Your task to perform on an android device: turn off data saver in the chrome app Image 0: 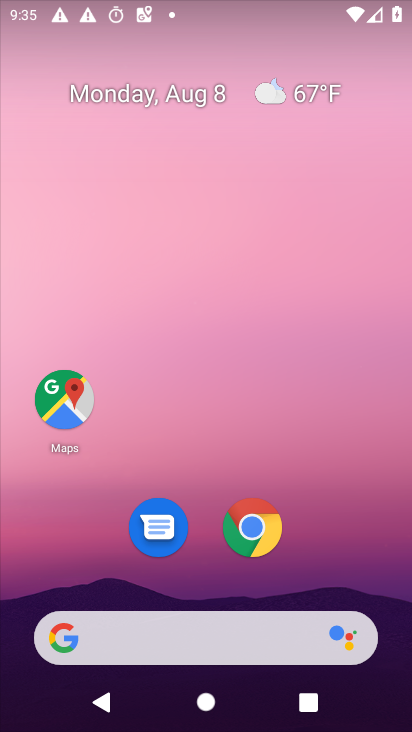
Step 0: click (258, 518)
Your task to perform on an android device: turn off data saver in the chrome app Image 1: 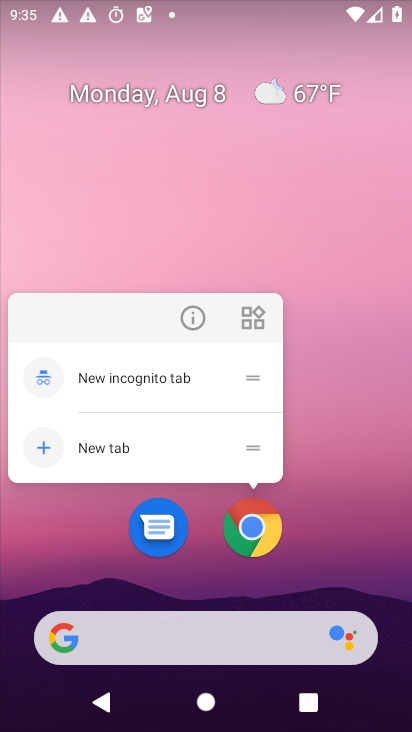
Step 1: click (250, 526)
Your task to perform on an android device: turn off data saver in the chrome app Image 2: 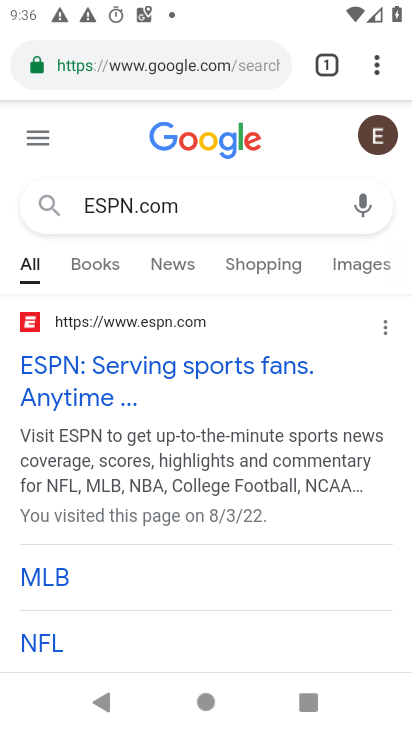
Step 2: click (373, 56)
Your task to perform on an android device: turn off data saver in the chrome app Image 3: 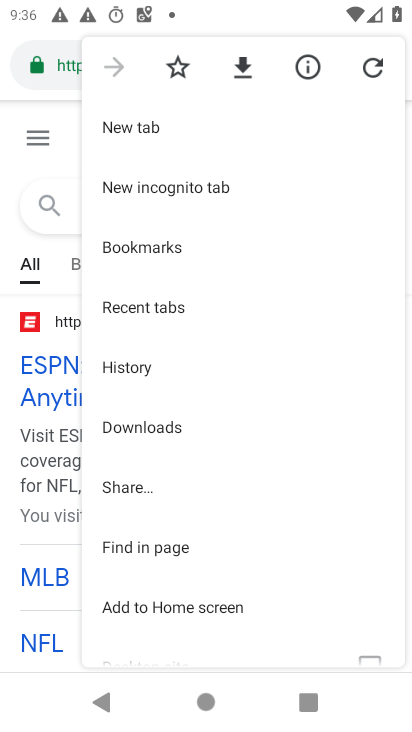
Step 3: drag from (305, 591) to (301, 275)
Your task to perform on an android device: turn off data saver in the chrome app Image 4: 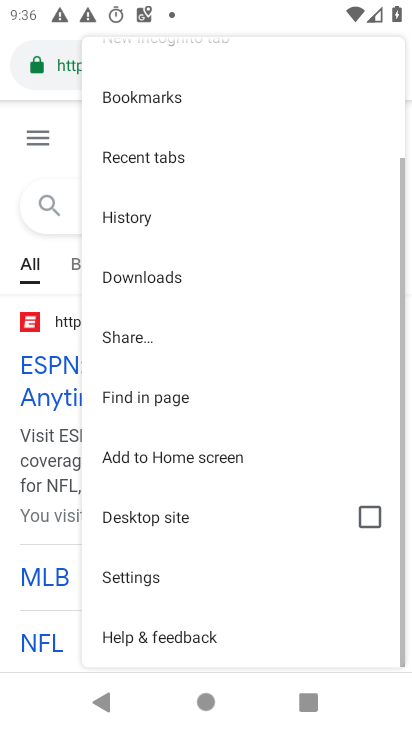
Step 4: click (145, 576)
Your task to perform on an android device: turn off data saver in the chrome app Image 5: 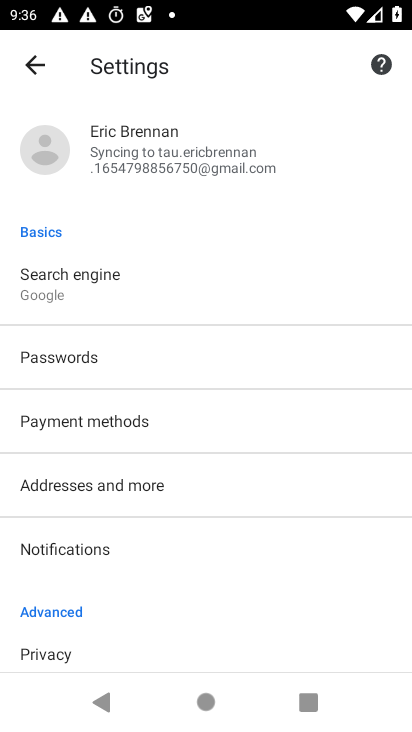
Step 5: drag from (293, 623) to (318, 298)
Your task to perform on an android device: turn off data saver in the chrome app Image 6: 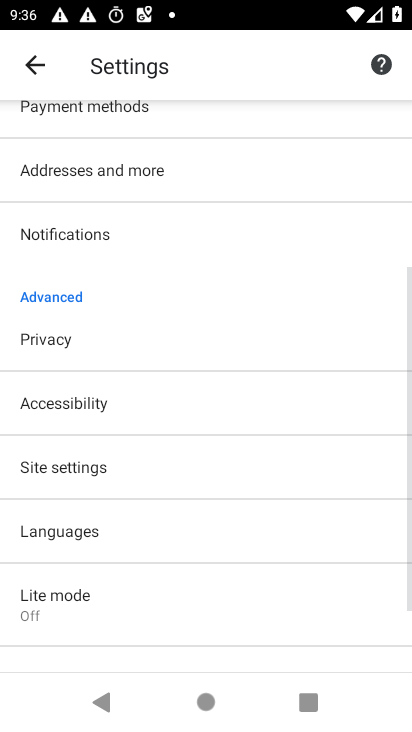
Step 6: click (64, 470)
Your task to perform on an android device: turn off data saver in the chrome app Image 7: 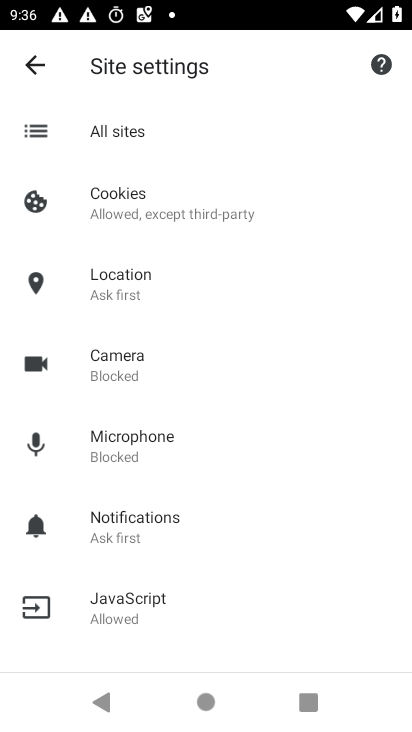
Step 7: click (31, 65)
Your task to perform on an android device: turn off data saver in the chrome app Image 8: 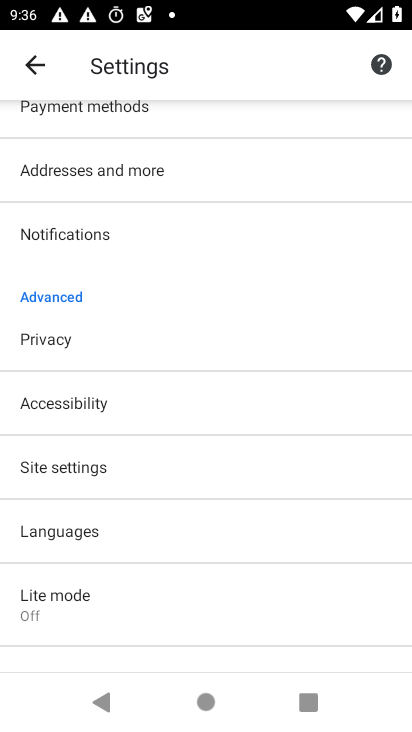
Step 8: click (69, 595)
Your task to perform on an android device: turn off data saver in the chrome app Image 9: 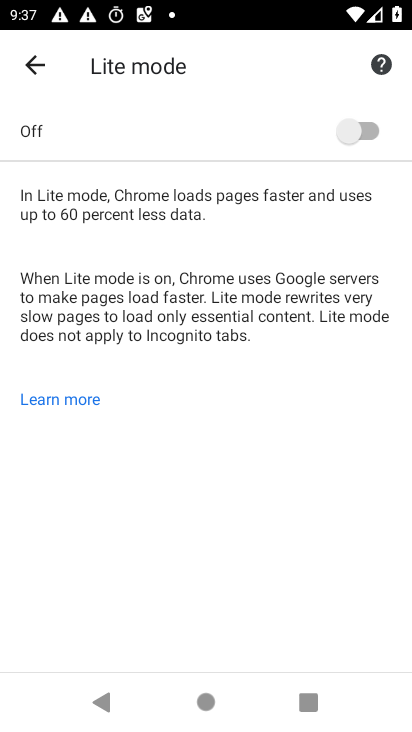
Step 9: task complete